Your task to perform on an android device: open a new tab in the chrome app Image 0: 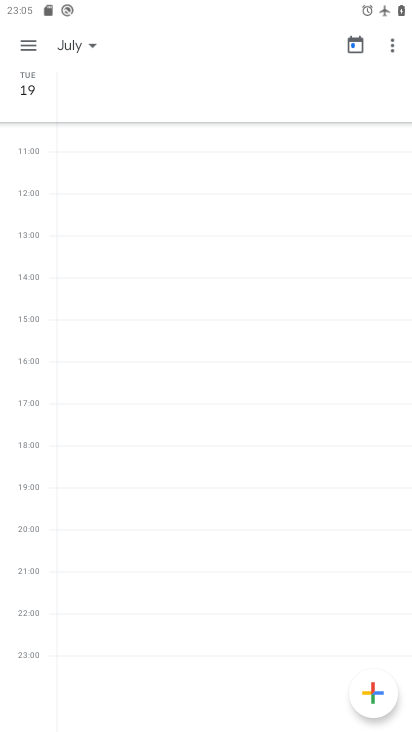
Step 0: press home button
Your task to perform on an android device: open a new tab in the chrome app Image 1: 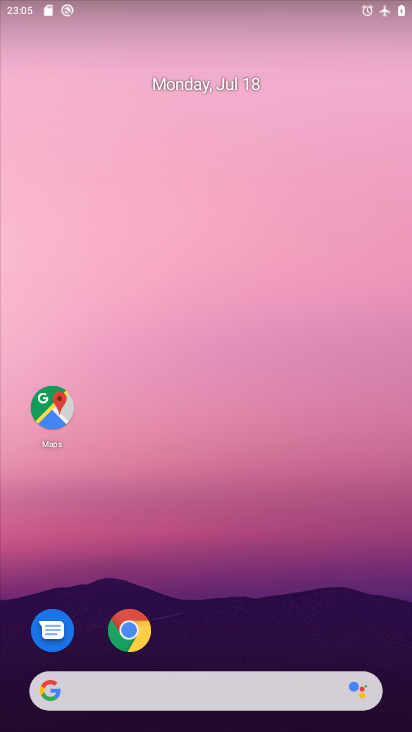
Step 1: drag from (307, 616) to (302, 162)
Your task to perform on an android device: open a new tab in the chrome app Image 2: 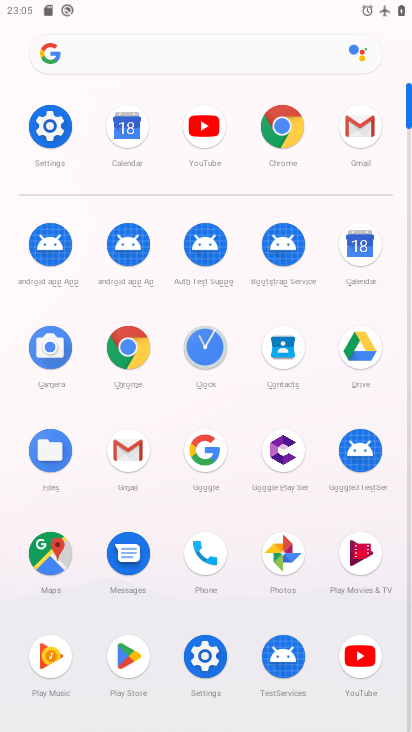
Step 2: click (288, 115)
Your task to perform on an android device: open a new tab in the chrome app Image 3: 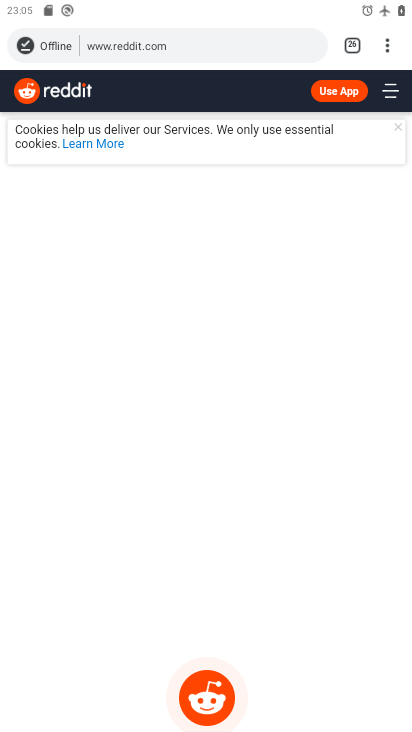
Step 3: click (383, 39)
Your task to perform on an android device: open a new tab in the chrome app Image 4: 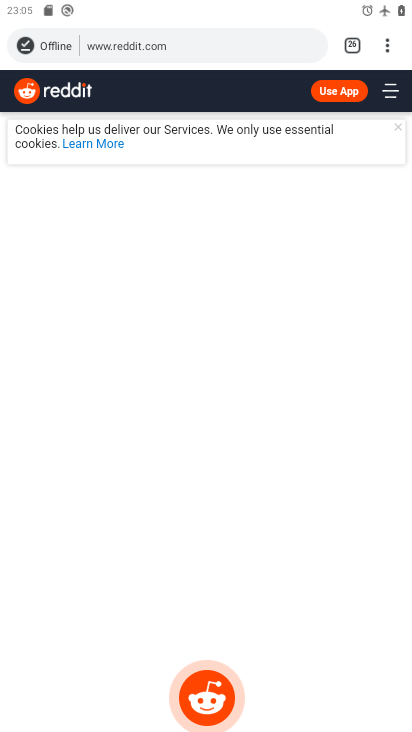
Step 4: click (390, 44)
Your task to perform on an android device: open a new tab in the chrome app Image 5: 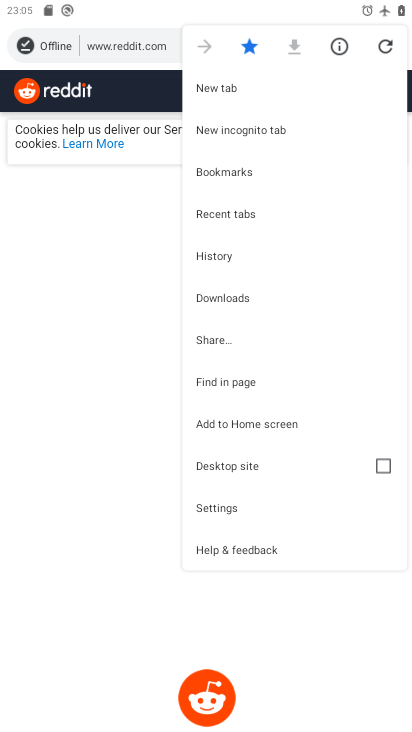
Step 5: click (230, 78)
Your task to perform on an android device: open a new tab in the chrome app Image 6: 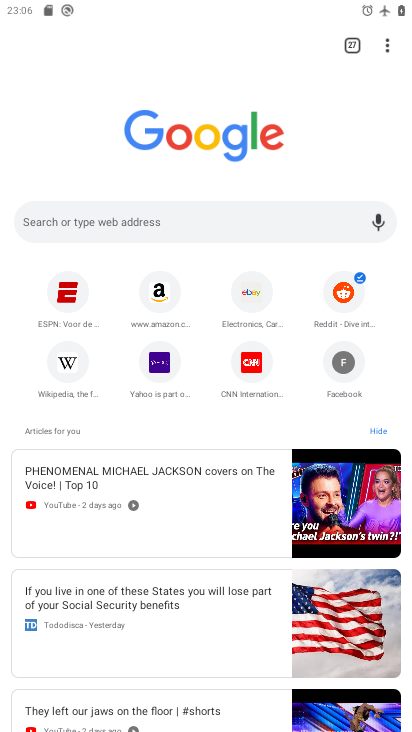
Step 6: task complete